Your task to perform on an android device: Do I have any events this weekend? Image 0: 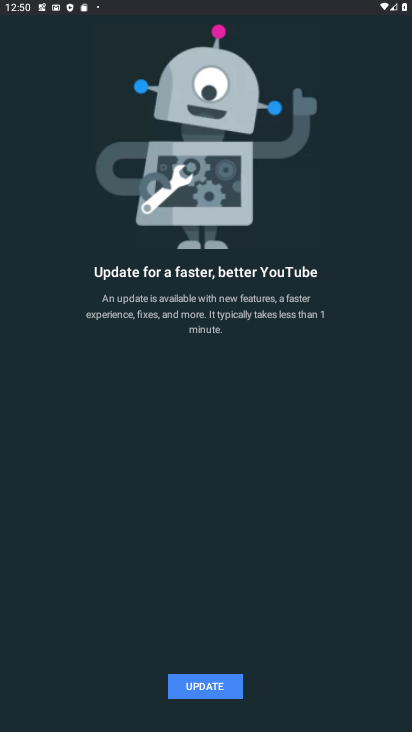
Step 0: press home button
Your task to perform on an android device: Do I have any events this weekend? Image 1: 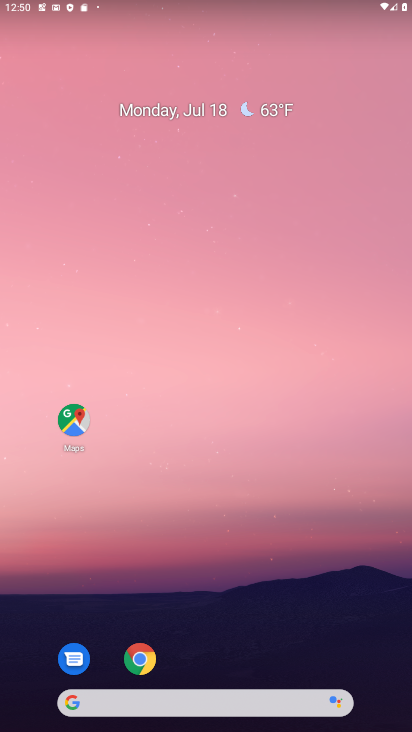
Step 1: drag from (264, 696) to (208, 212)
Your task to perform on an android device: Do I have any events this weekend? Image 2: 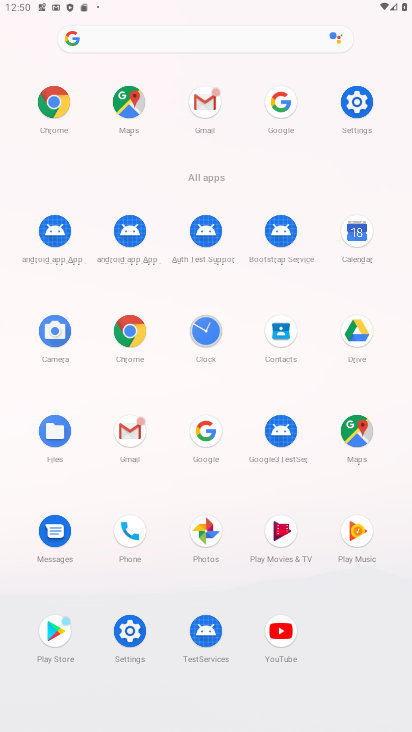
Step 2: click (355, 233)
Your task to perform on an android device: Do I have any events this weekend? Image 3: 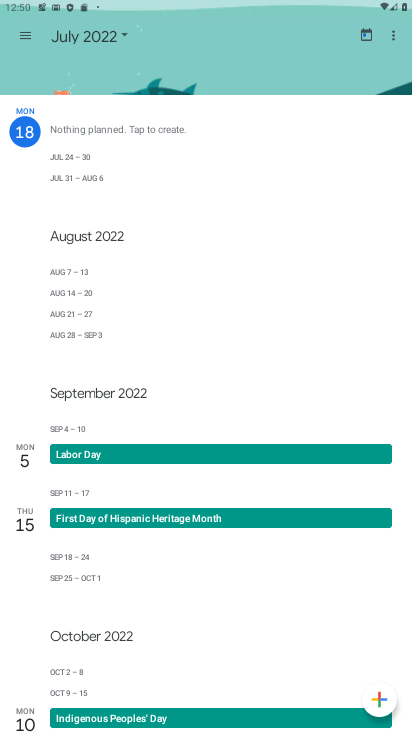
Step 3: click (90, 36)
Your task to perform on an android device: Do I have any events this weekend? Image 4: 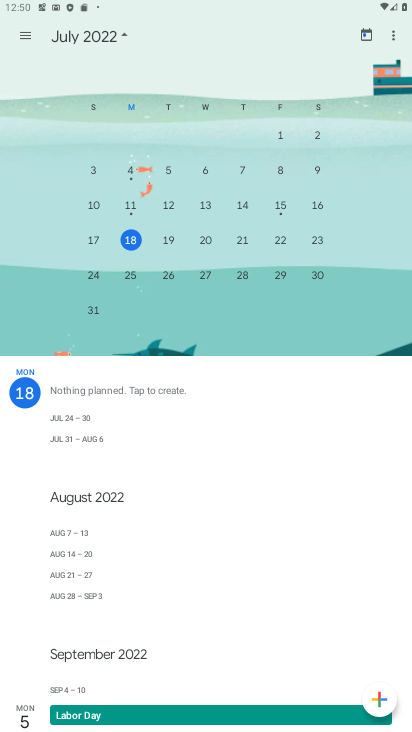
Step 4: click (317, 242)
Your task to perform on an android device: Do I have any events this weekend? Image 5: 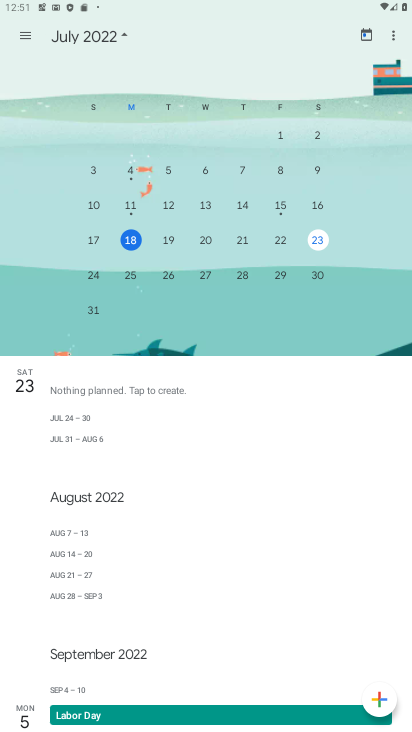
Step 5: task complete